Your task to perform on an android device: turn off translation in the chrome app Image 0: 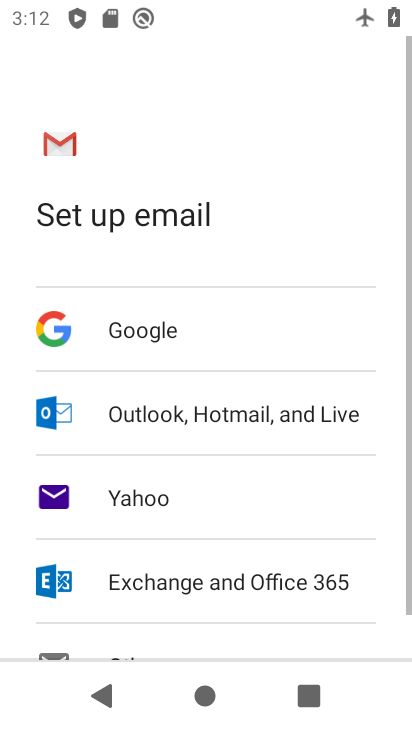
Step 0: press back button
Your task to perform on an android device: turn off translation in the chrome app Image 1: 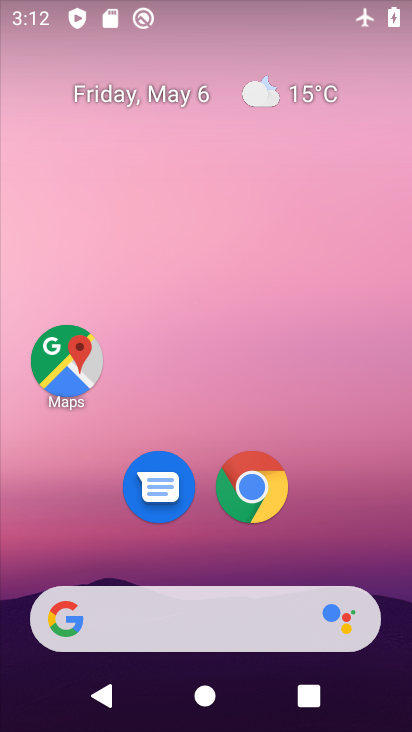
Step 1: click (260, 488)
Your task to perform on an android device: turn off translation in the chrome app Image 2: 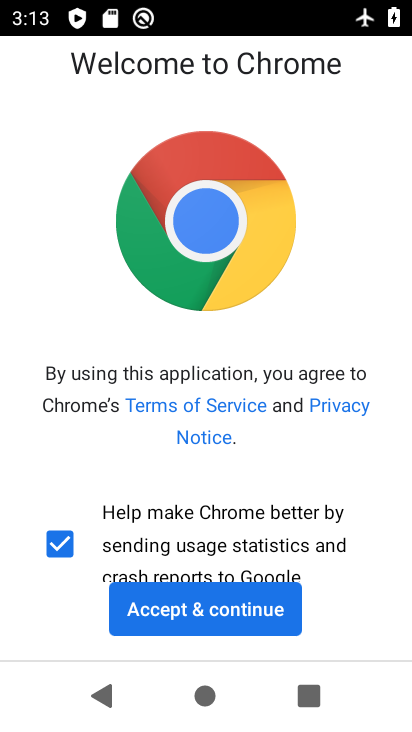
Step 2: click (263, 630)
Your task to perform on an android device: turn off translation in the chrome app Image 3: 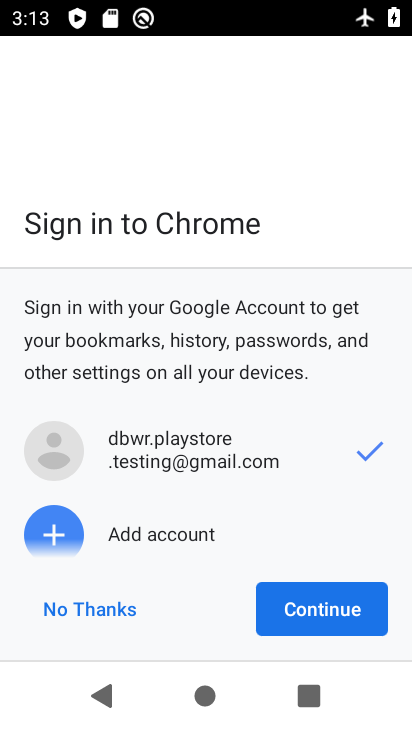
Step 3: click (285, 610)
Your task to perform on an android device: turn off translation in the chrome app Image 4: 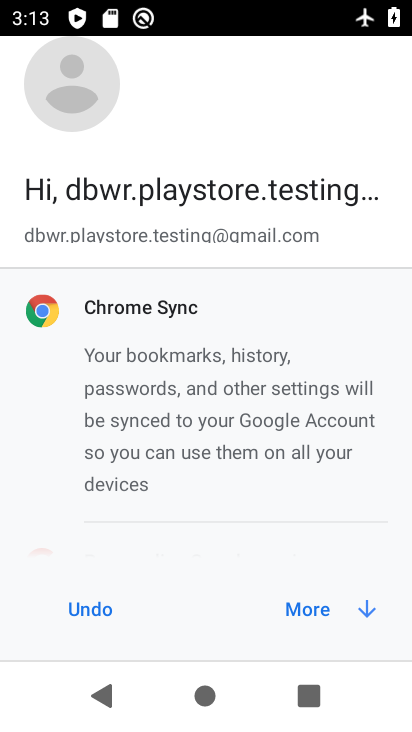
Step 4: click (343, 611)
Your task to perform on an android device: turn off translation in the chrome app Image 5: 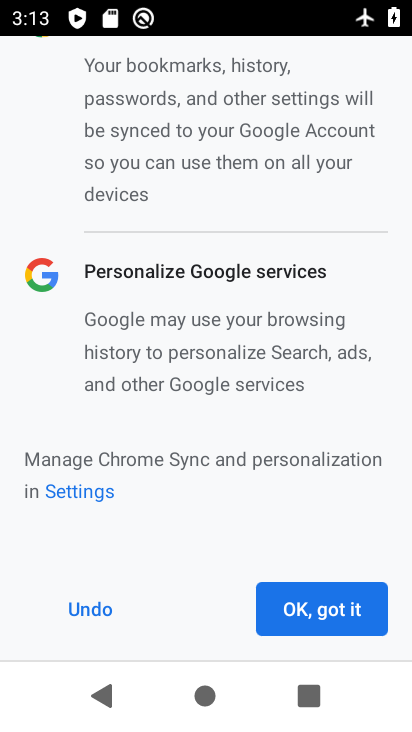
Step 5: click (343, 611)
Your task to perform on an android device: turn off translation in the chrome app Image 6: 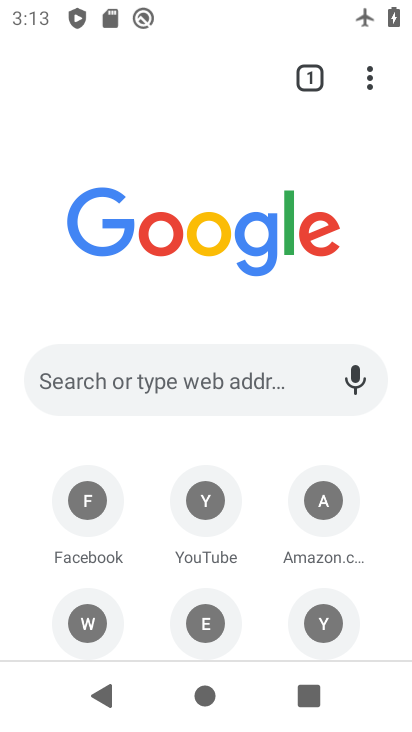
Step 6: drag from (370, 76) to (220, 543)
Your task to perform on an android device: turn off translation in the chrome app Image 7: 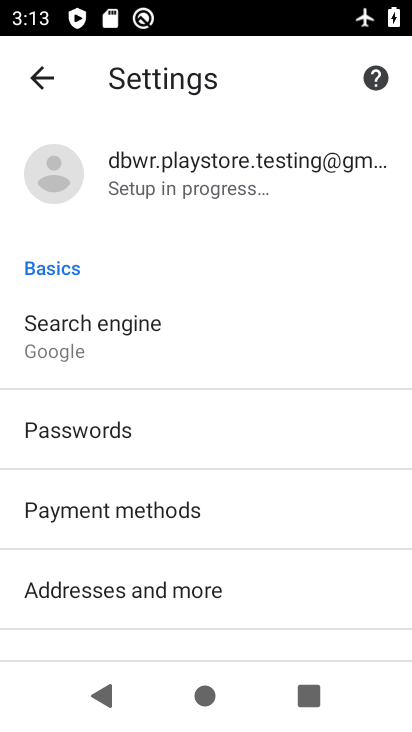
Step 7: drag from (195, 580) to (233, 360)
Your task to perform on an android device: turn off translation in the chrome app Image 8: 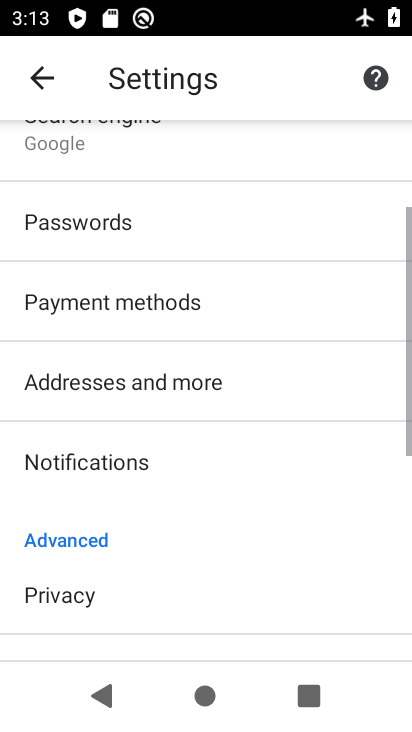
Step 8: drag from (152, 627) to (219, 304)
Your task to perform on an android device: turn off translation in the chrome app Image 9: 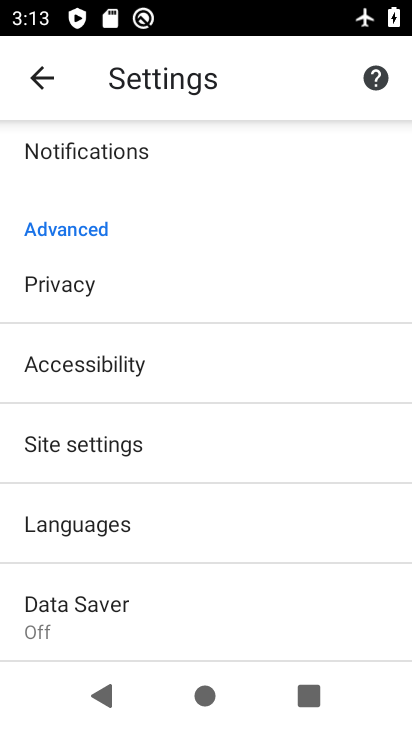
Step 9: drag from (167, 610) to (250, 359)
Your task to perform on an android device: turn off translation in the chrome app Image 10: 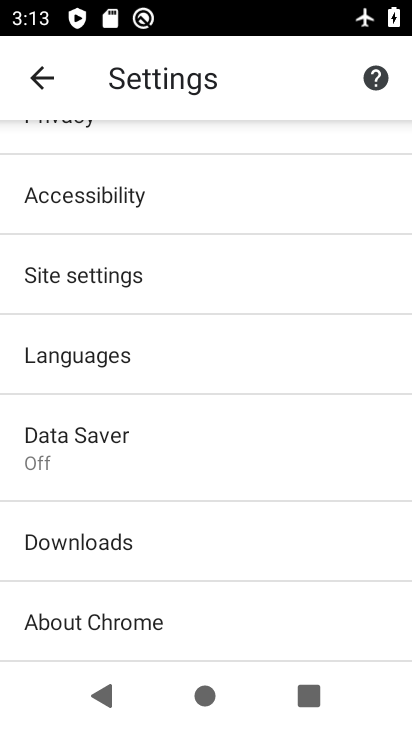
Step 10: click (154, 360)
Your task to perform on an android device: turn off translation in the chrome app Image 11: 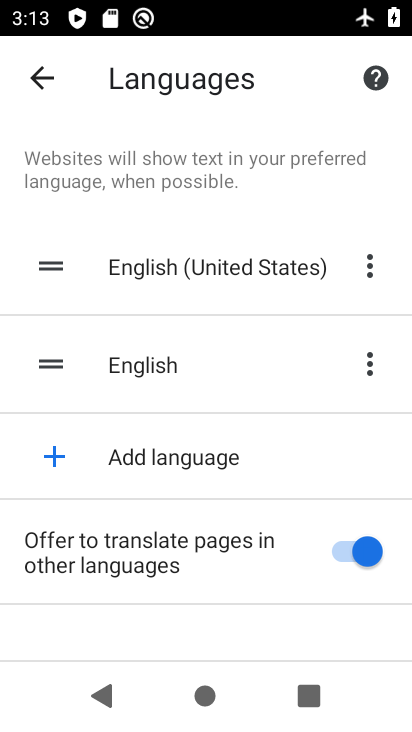
Step 11: click (339, 550)
Your task to perform on an android device: turn off translation in the chrome app Image 12: 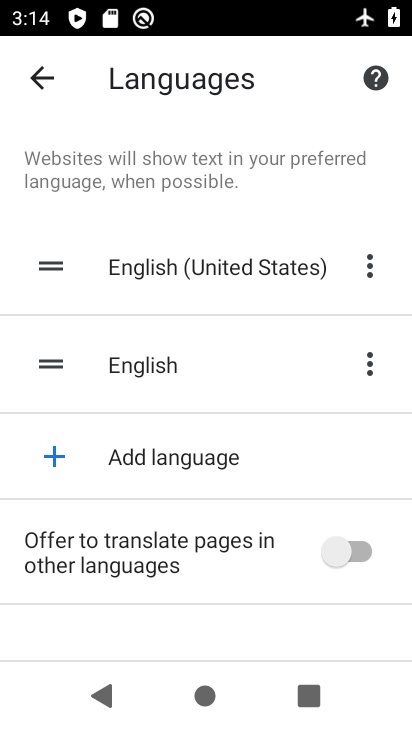
Step 12: task complete